Your task to perform on an android device: snooze an email in the gmail app Image 0: 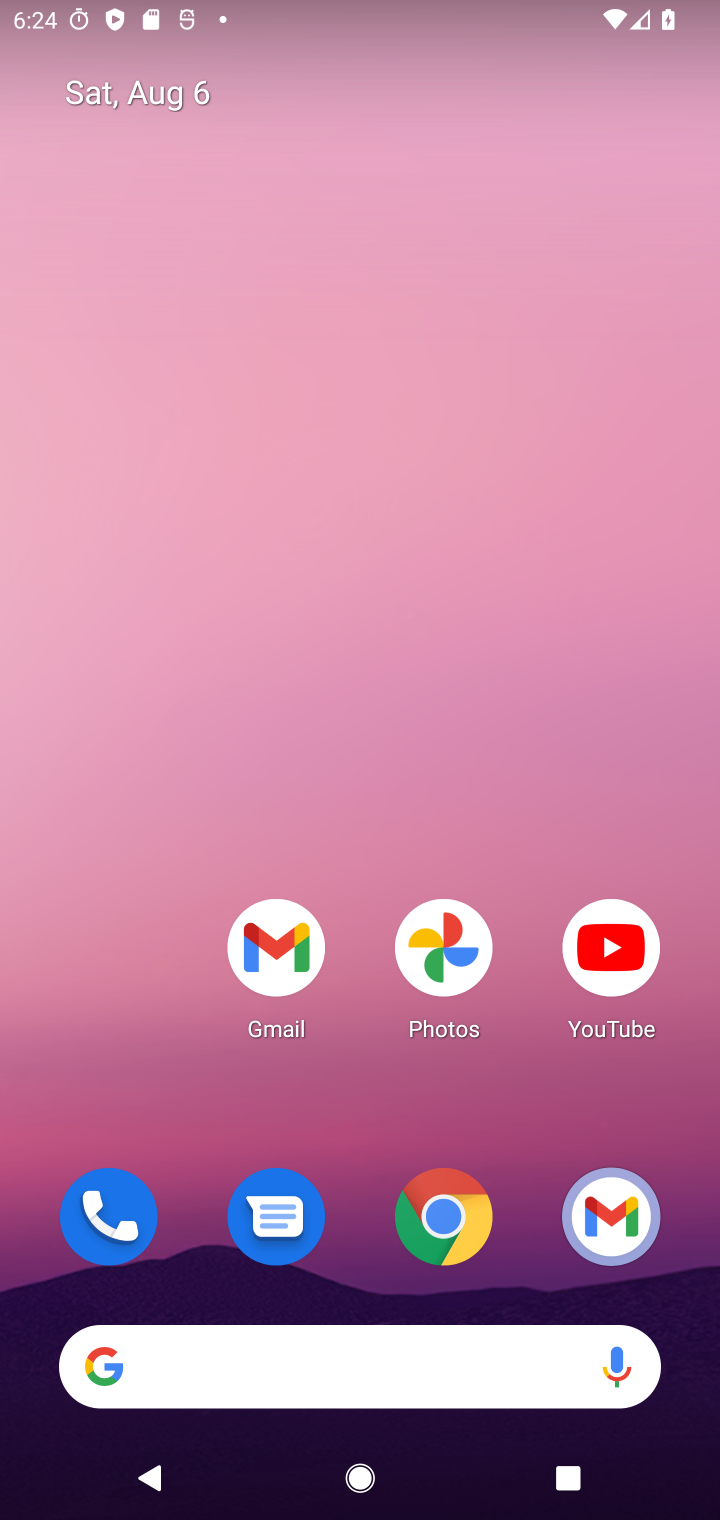
Step 0: drag from (511, 1093) to (532, 4)
Your task to perform on an android device: snooze an email in the gmail app Image 1: 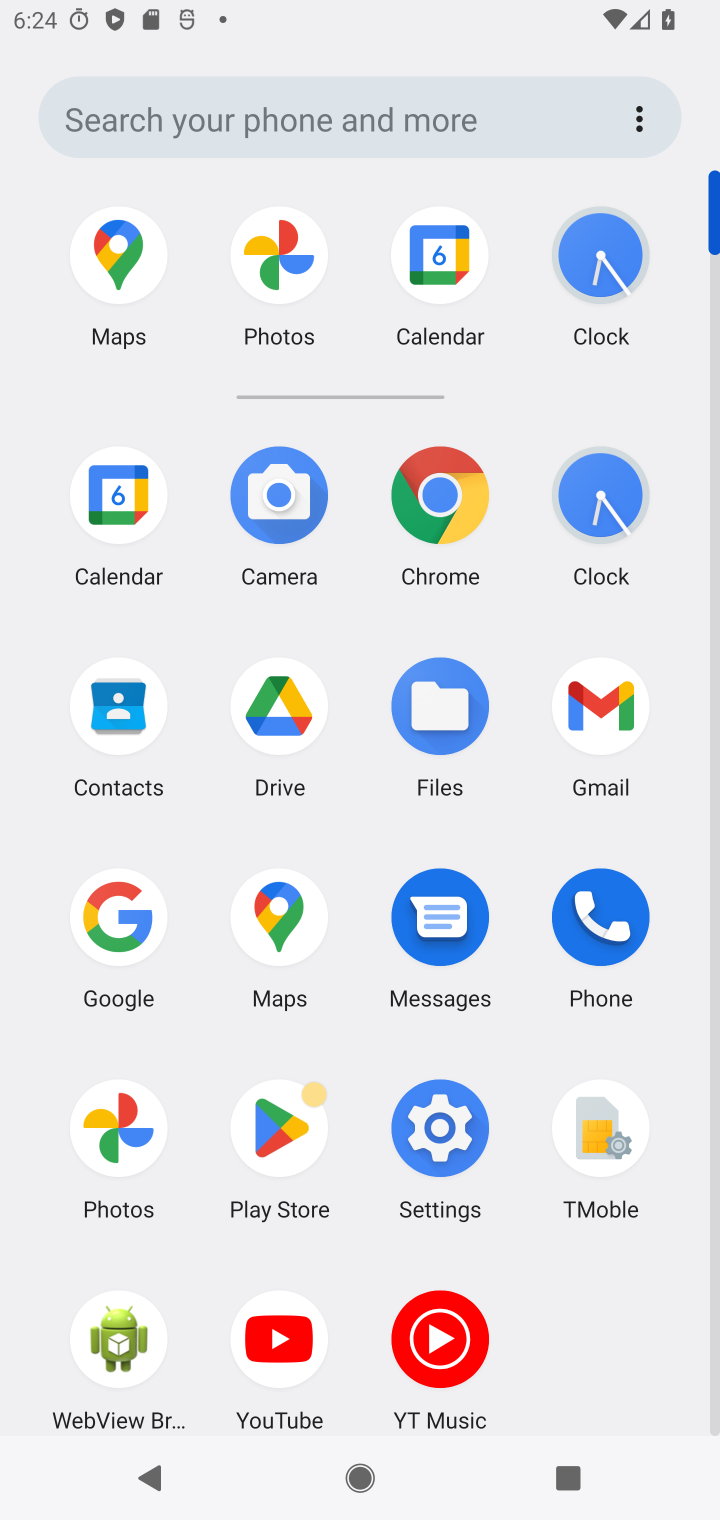
Step 1: click (619, 722)
Your task to perform on an android device: snooze an email in the gmail app Image 2: 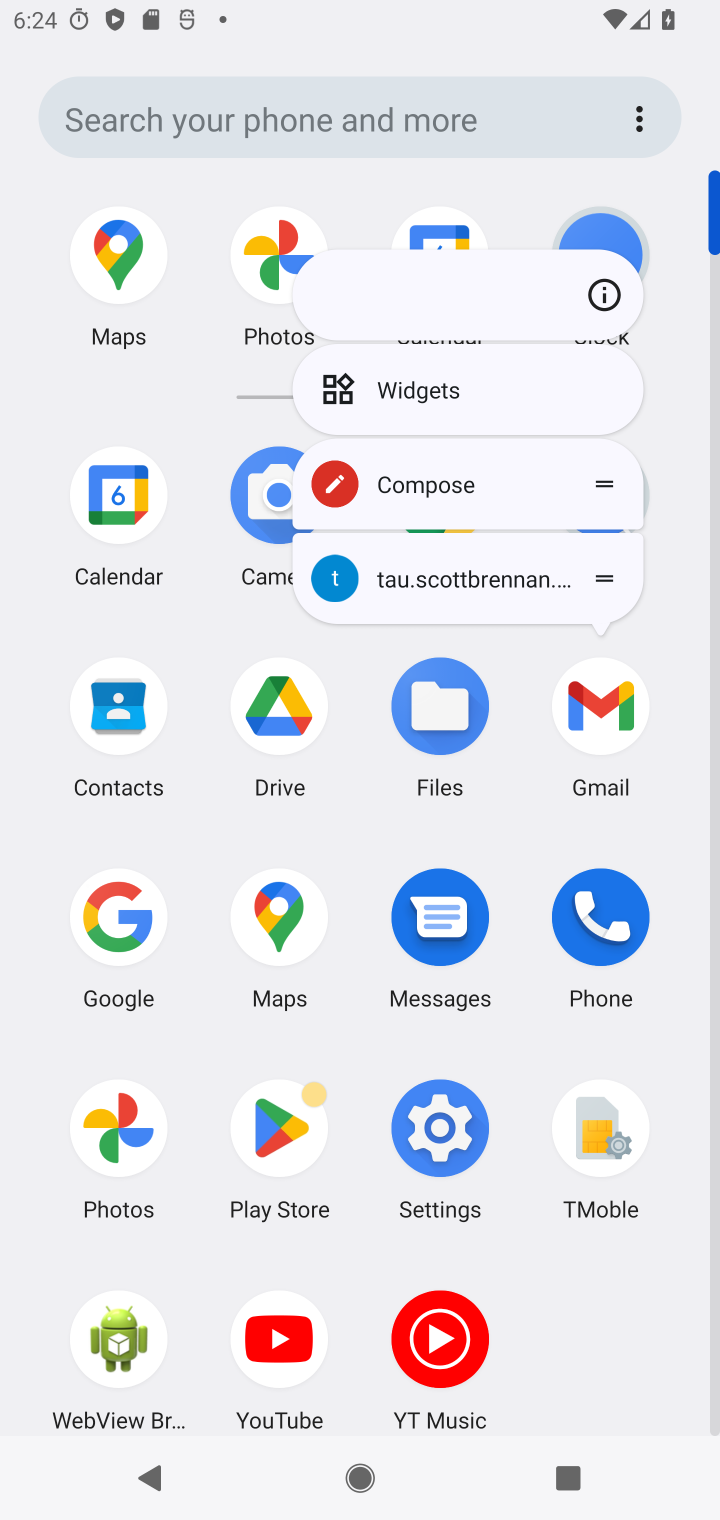
Step 2: click (588, 716)
Your task to perform on an android device: snooze an email in the gmail app Image 3: 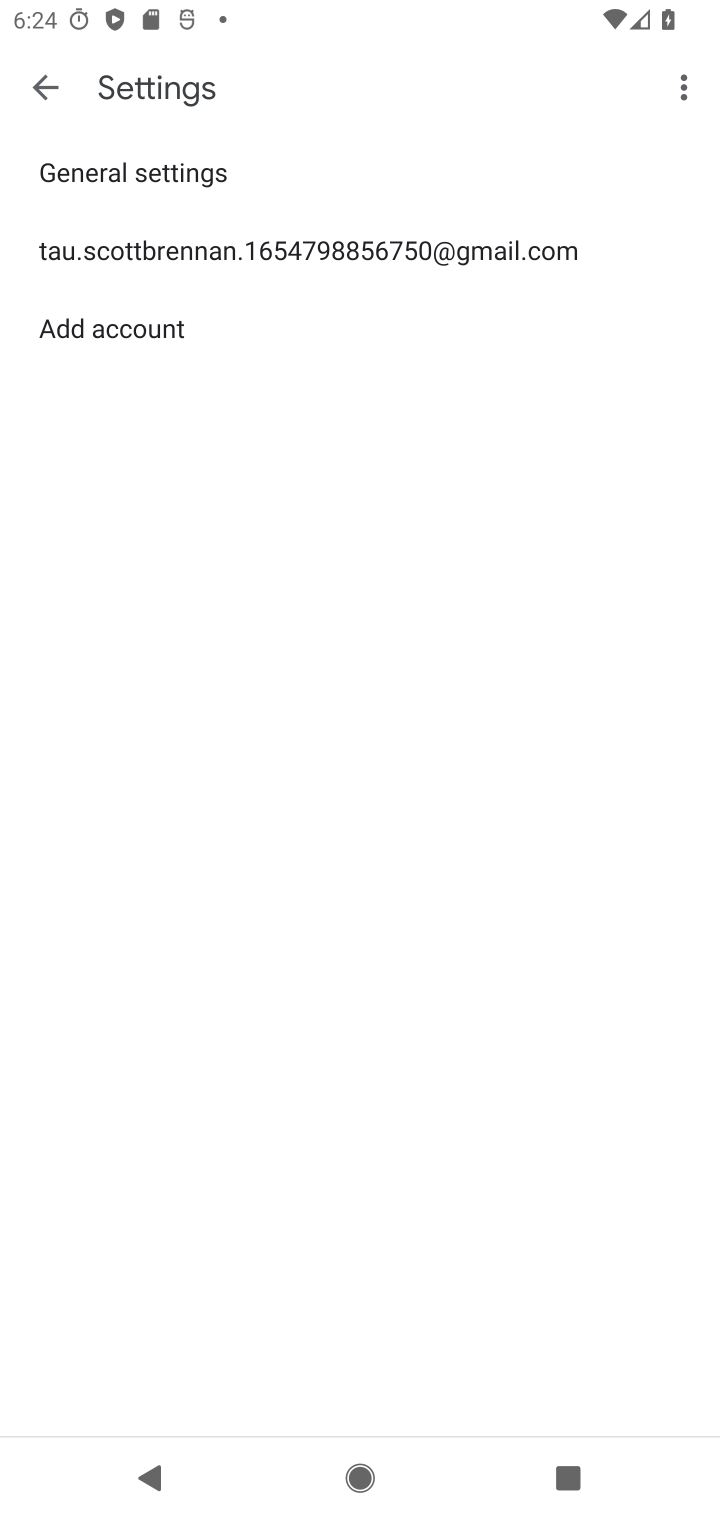
Step 3: click (43, 76)
Your task to perform on an android device: snooze an email in the gmail app Image 4: 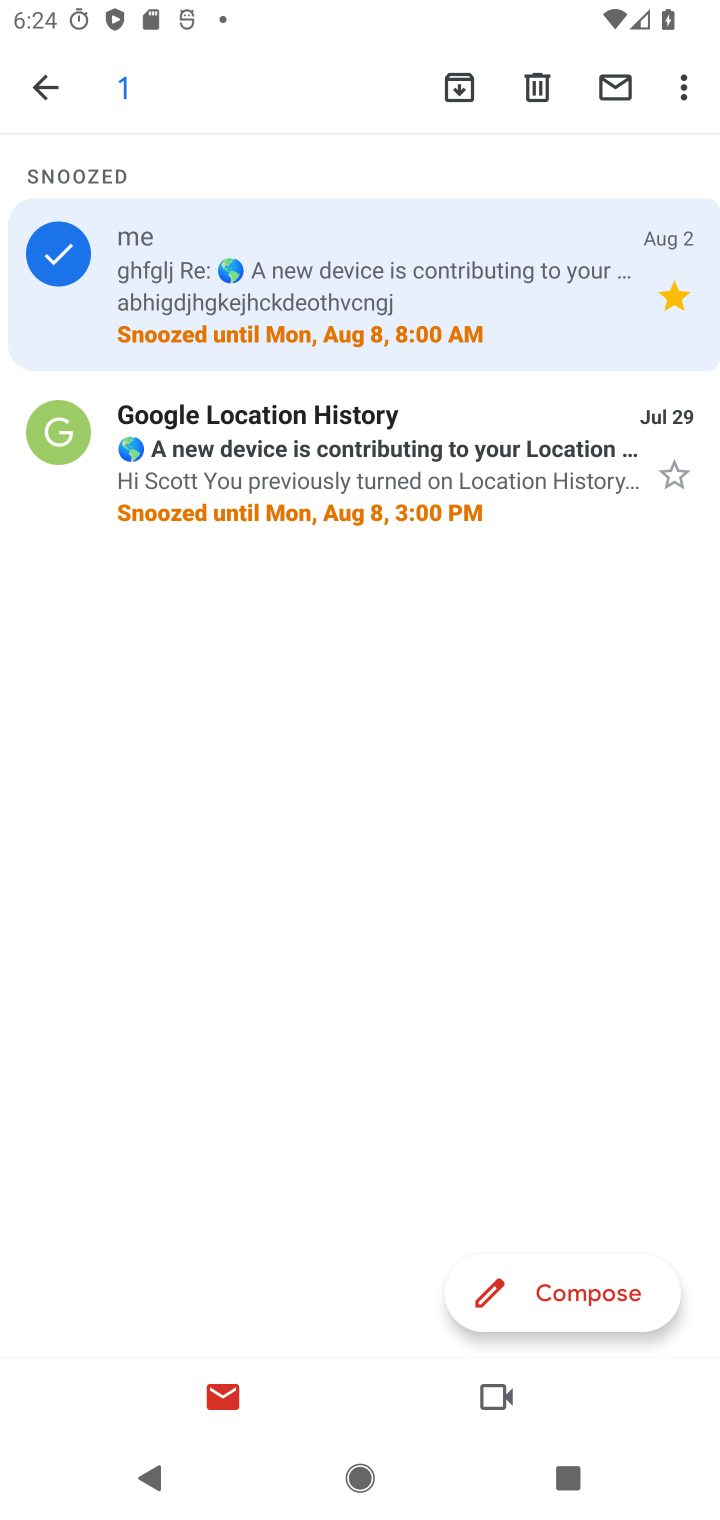
Step 4: click (680, 82)
Your task to perform on an android device: snooze an email in the gmail app Image 5: 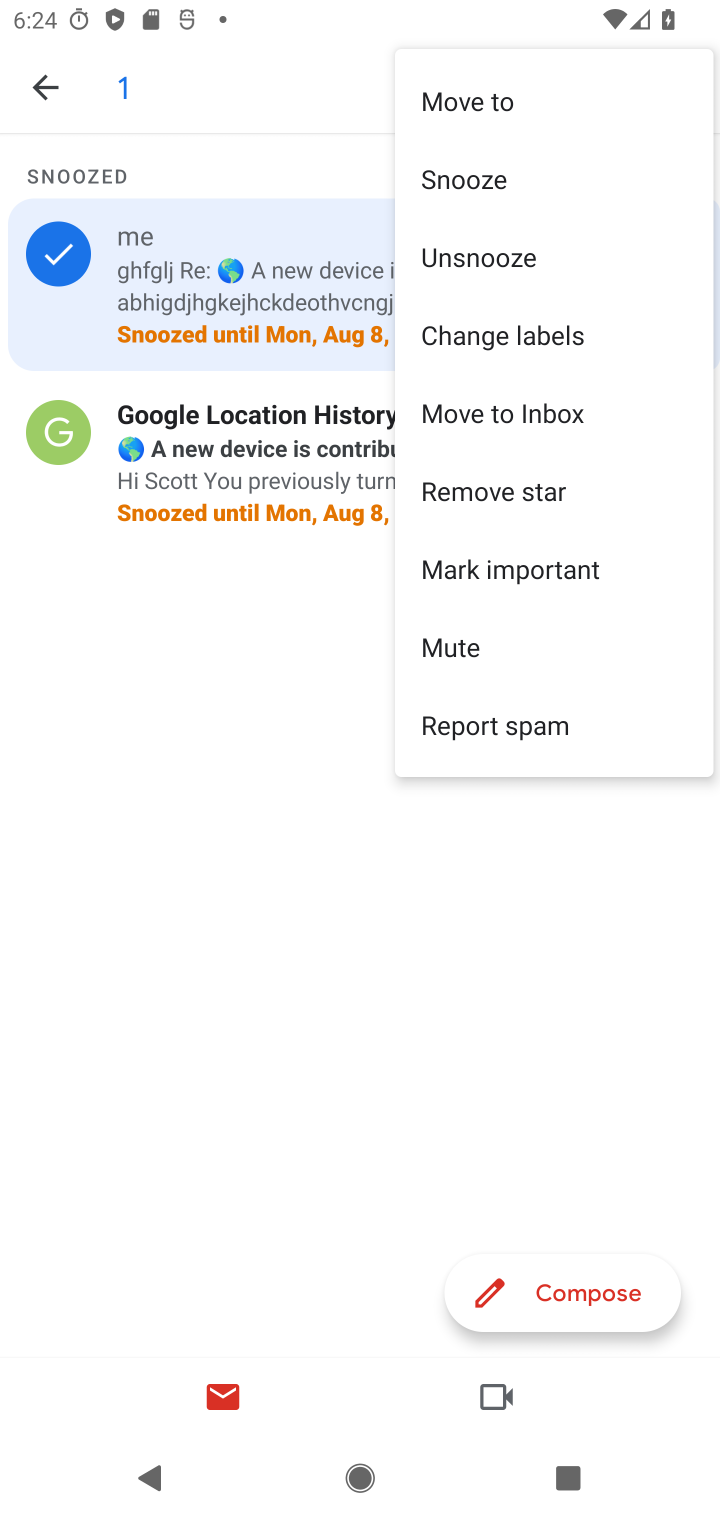
Step 5: click (484, 170)
Your task to perform on an android device: snooze an email in the gmail app Image 6: 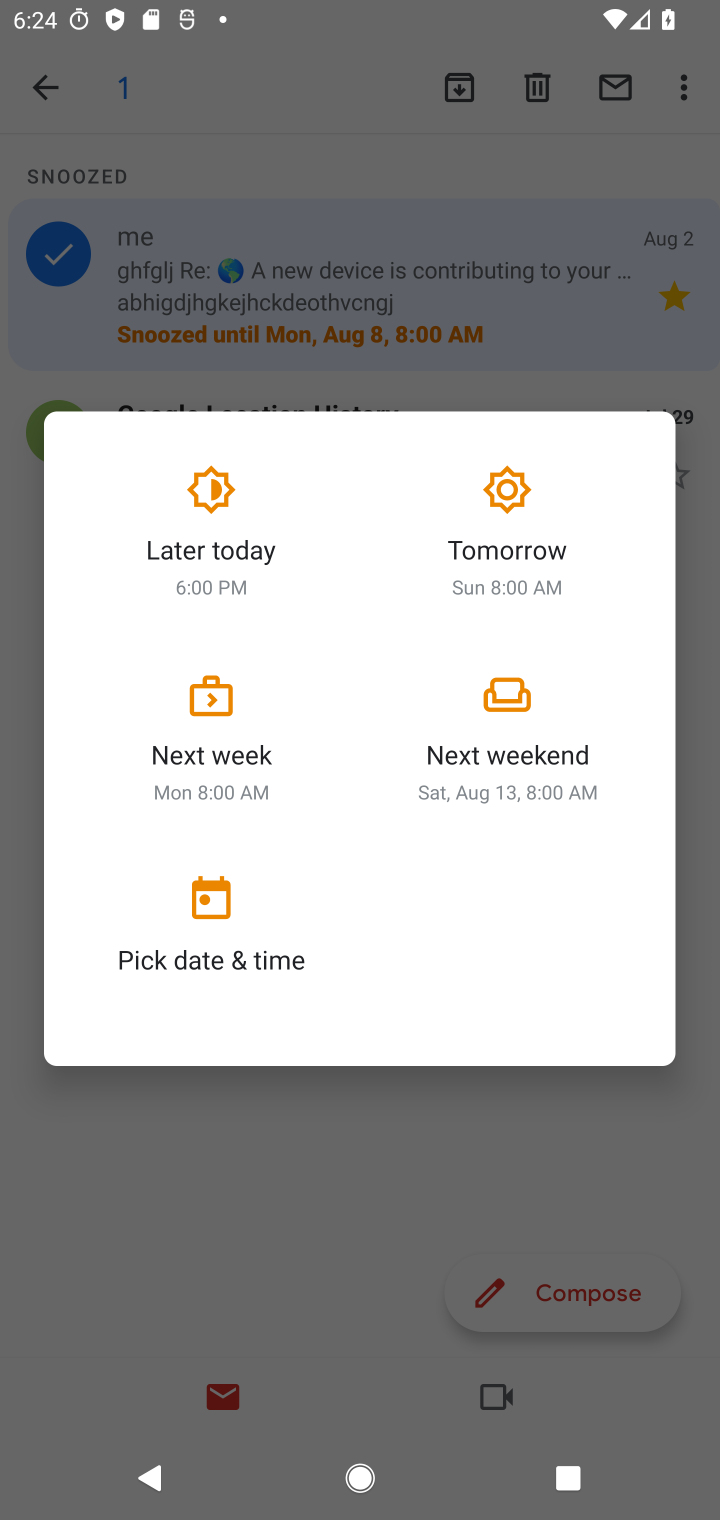
Step 6: click (507, 549)
Your task to perform on an android device: snooze an email in the gmail app Image 7: 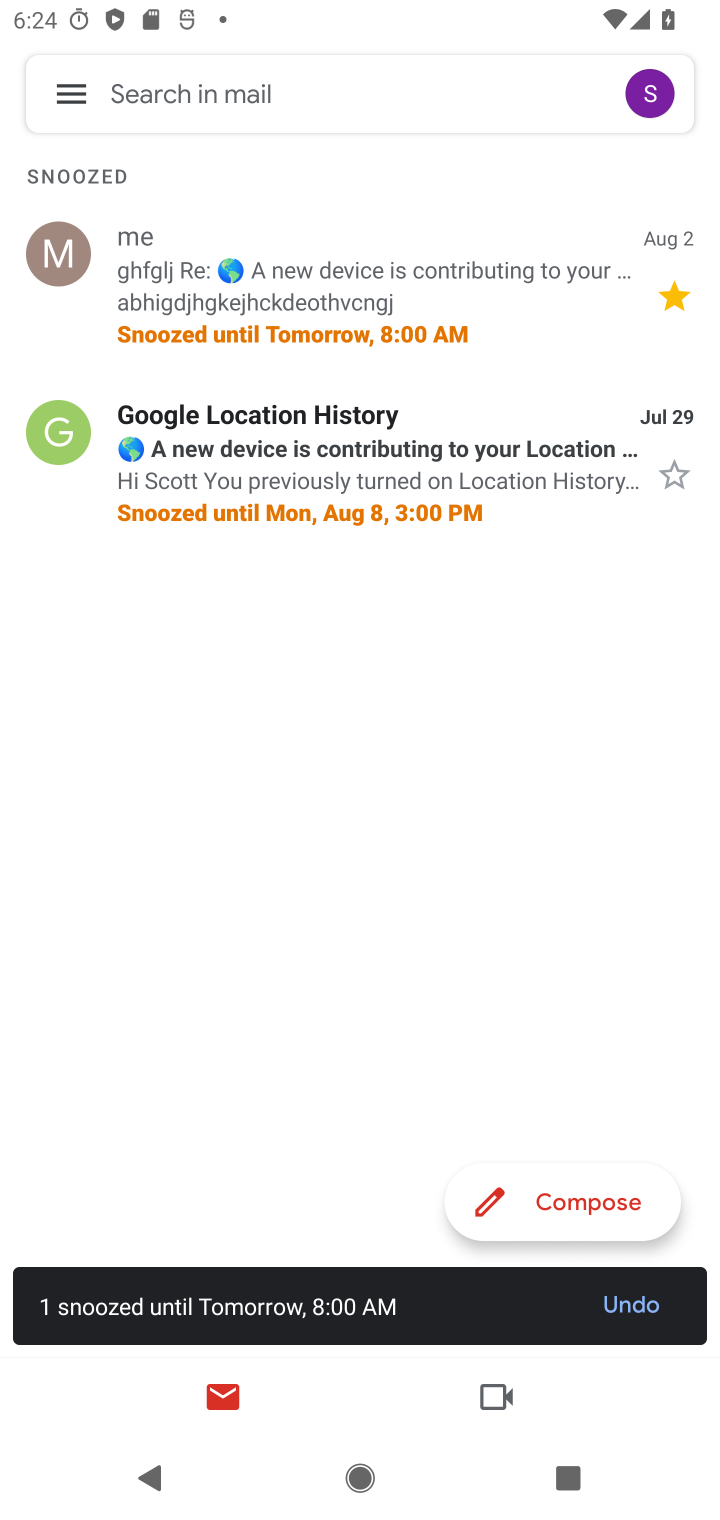
Step 7: task complete